Your task to perform on an android device: turn off notifications in google photos Image 0: 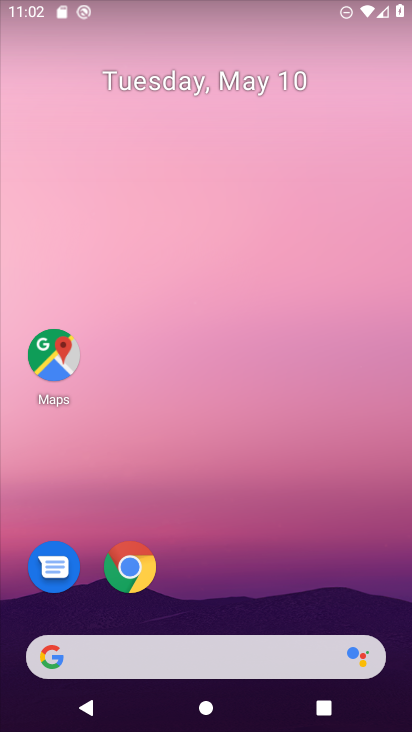
Step 0: drag from (204, 395) to (232, 165)
Your task to perform on an android device: turn off notifications in google photos Image 1: 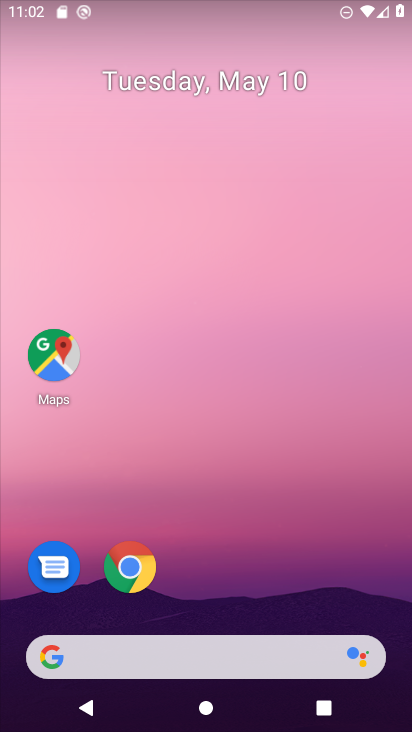
Step 1: drag from (256, 528) to (260, 77)
Your task to perform on an android device: turn off notifications in google photos Image 2: 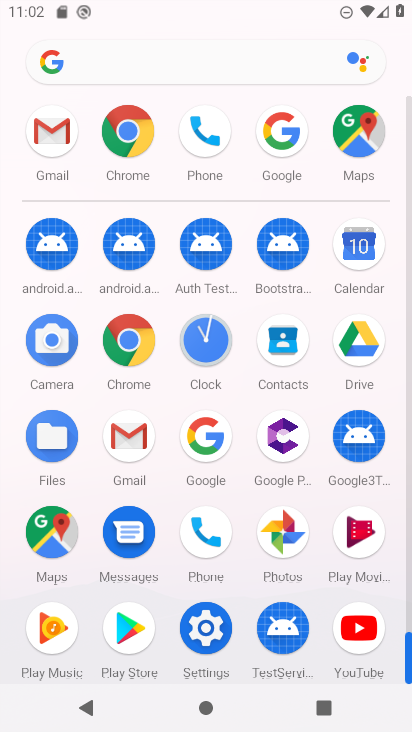
Step 2: click (289, 539)
Your task to perform on an android device: turn off notifications in google photos Image 3: 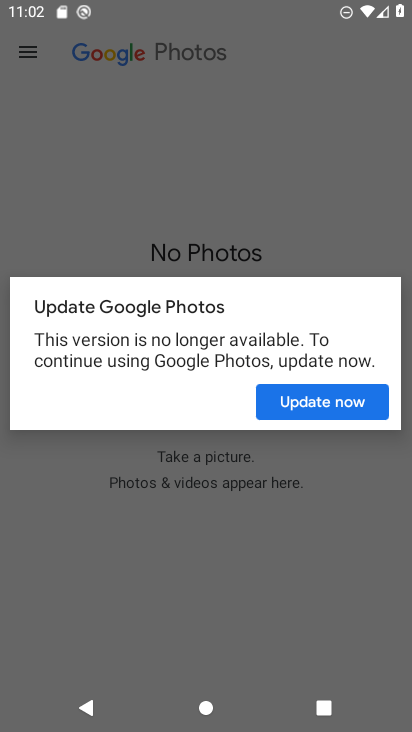
Step 3: click (294, 402)
Your task to perform on an android device: turn off notifications in google photos Image 4: 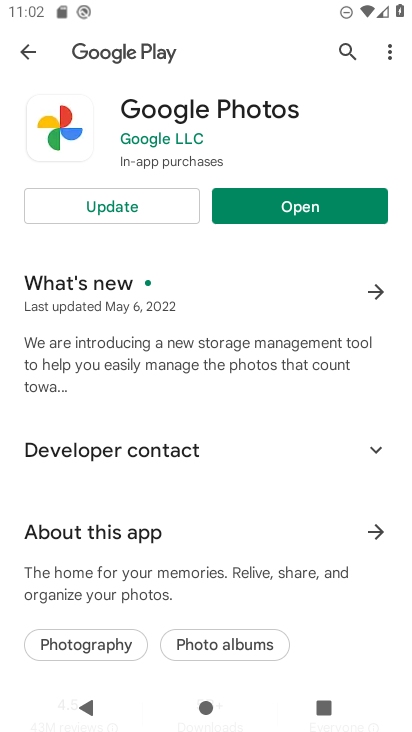
Step 4: click (127, 212)
Your task to perform on an android device: turn off notifications in google photos Image 5: 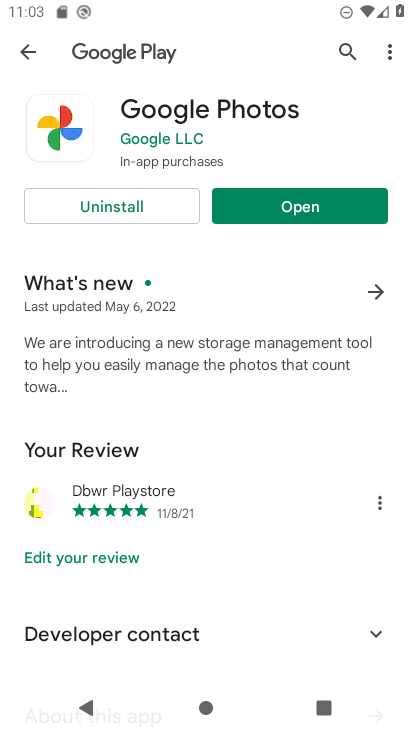
Step 5: click (321, 205)
Your task to perform on an android device: turn off notifications in google photos Image 6: 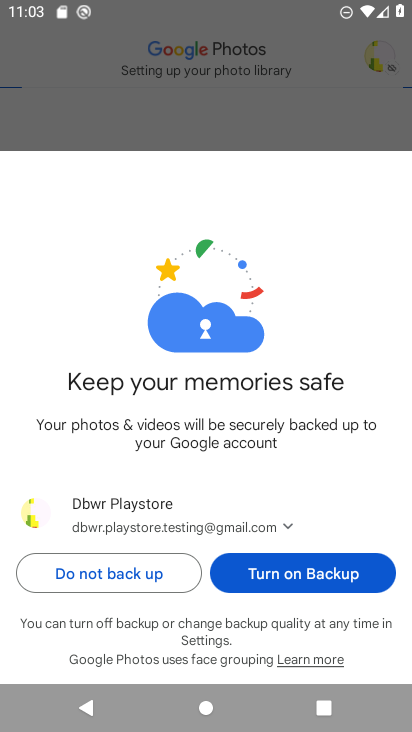
Step 6: click (319, 571)
Your task to perform on an android device: turn off notifications in google photos Image 7: 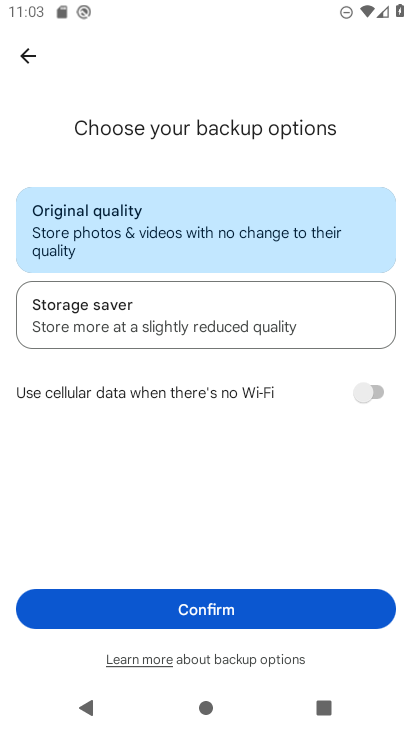
Step 7: click (279, 616)
Your task to perform on an android device: turn off notifications in google photos Image 8: 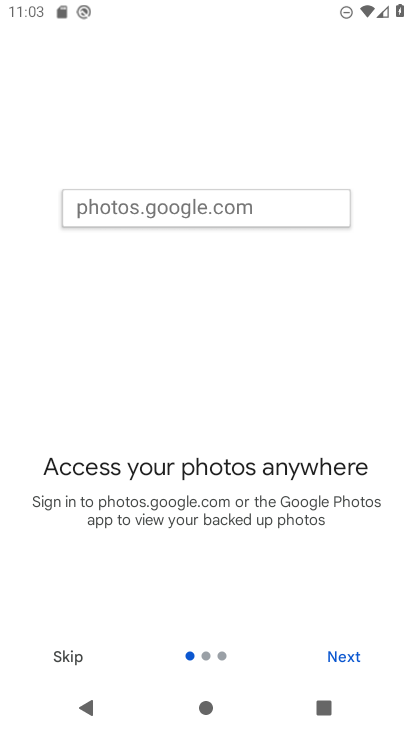
Step 8: click (50, 655)
Your task to perform on an android device: turn off notifications in google photos Image 9: 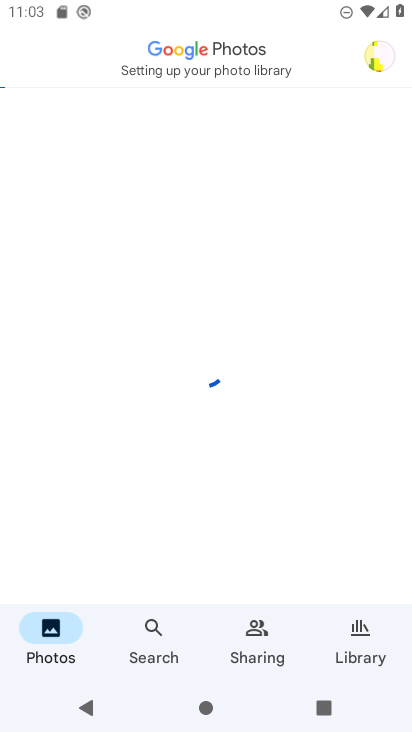
Step 9: click (385, 63)
Your task to perform on an android device: turn off notifications in google photos Image 10: 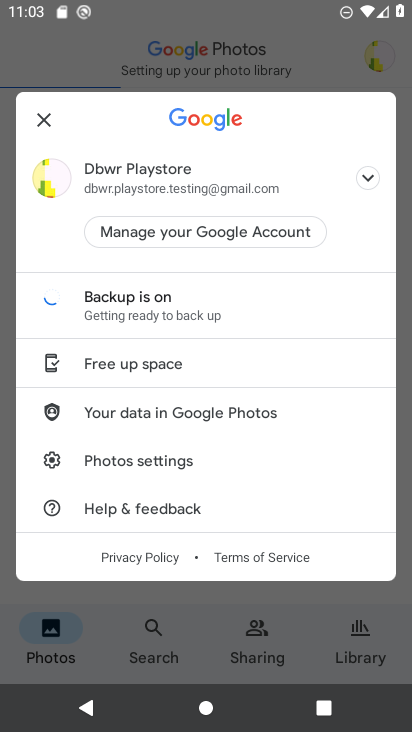
Step 10: click (175, 461)
Your task to perform on an android device: turn off notifications in google photos Image 11: 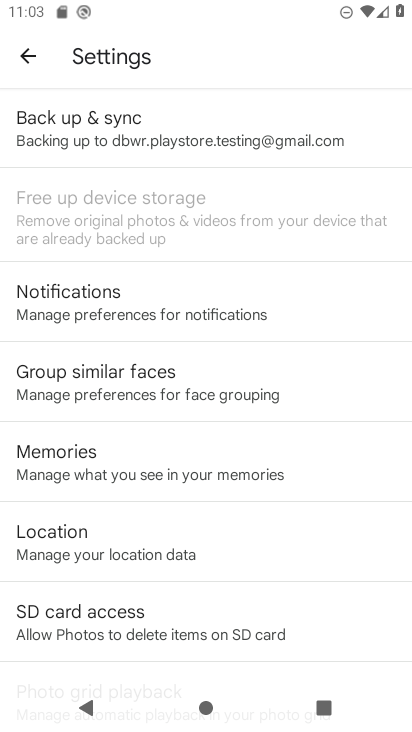
Step 11: click (116, 300)
Your task to perform on an android device: turn off notifications in google photos Image 12: 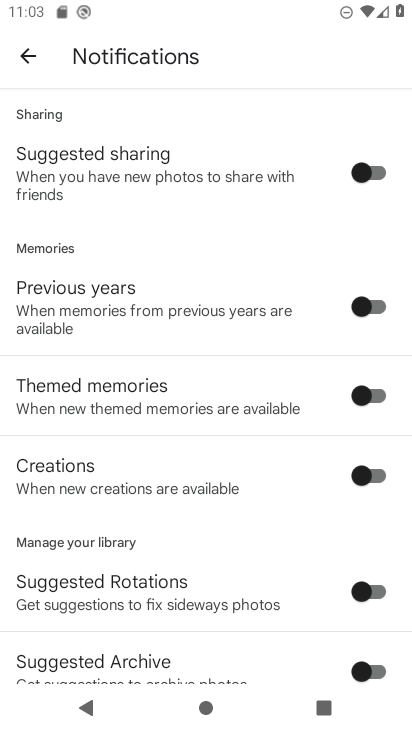
Step 12: drag from (198, 612) to (206, 136)
Your task to perform on an android device: turn off notifications in google photos Image 13: 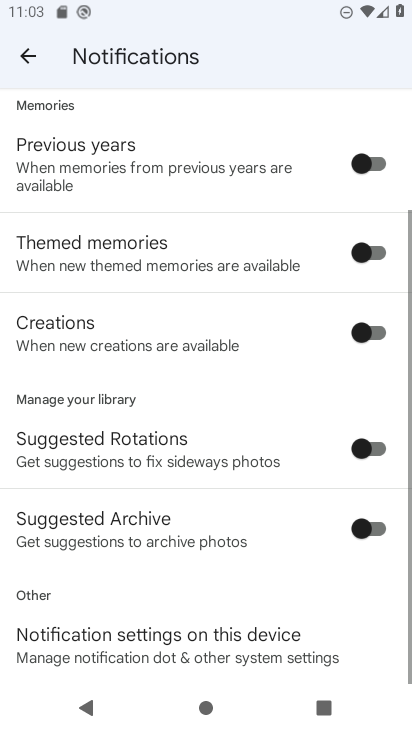
Step 13: click (197, 649)
Your task to perform on an android device: turn off notifications in google photos Image 14: 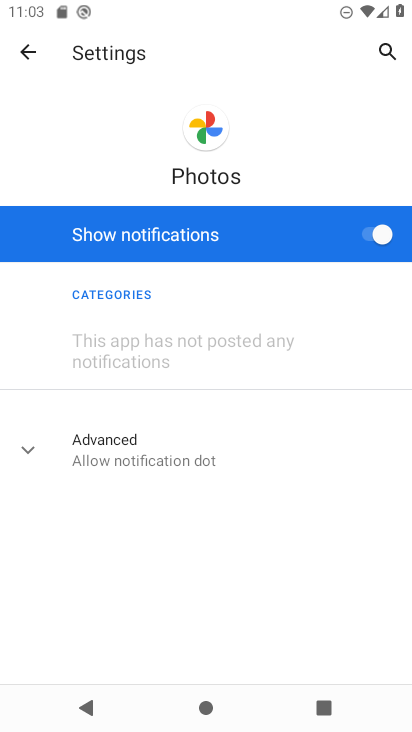
Step 14: click (379, 241)
Your task to perform on an android device: turn off notifications in google photos Image 15: 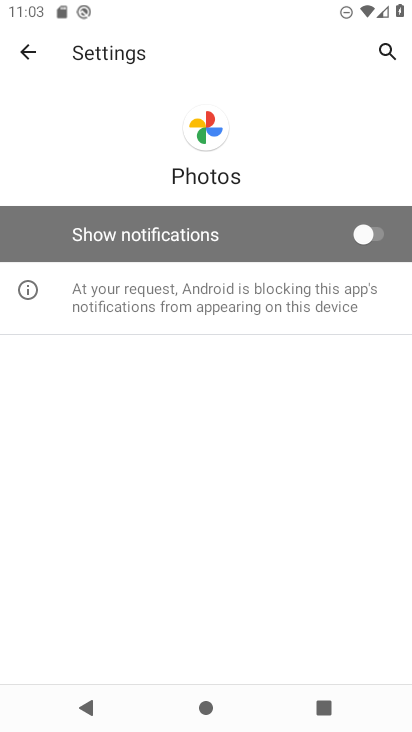
Step 15: task complete